Your task to perform on an android device: Empty the shopping cart on target. Search for "asus zenbook" on target, select the first entry, add it to the cart, then select checkout. Image 0: 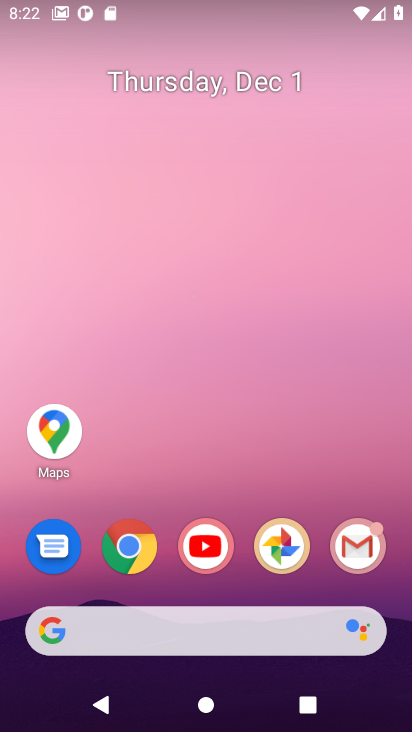
Step 0: click (125, 552)
Your task to perform on an android device: Empty the shopping cart on target. Search for "asus zenbook" on target, select the first entry, add it to the cart, then select checkout. Image 1: 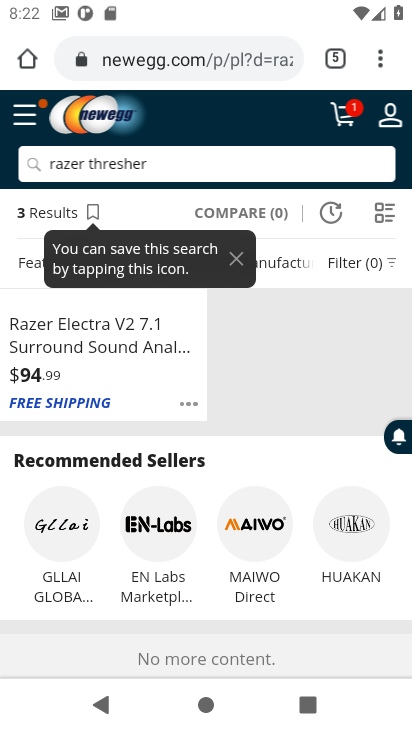
Step 1: click (167, 64)
Your task to perform on an android device: Empty the shopping cart on target. Search for "asus zenbook" on target, select the first entry, add it to the cart, then select checkout. Image 2: 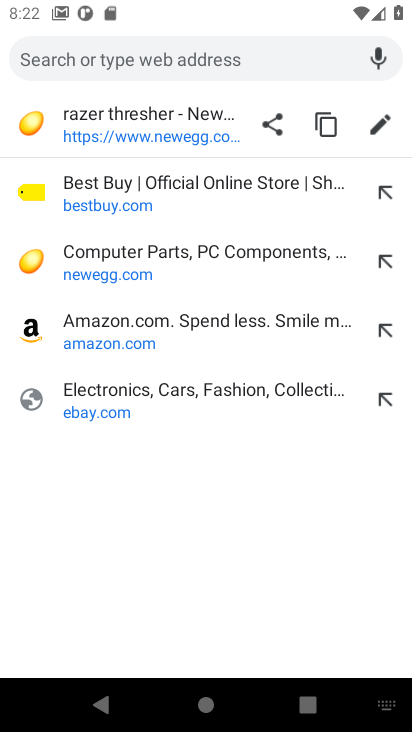
Step 2: type "target.com"
Your task to perform on an android device: Empty the shopping cart on target. Search for "asus zenbook" on target, select the first entry, add it to the cart, then select checkout. Image 3: 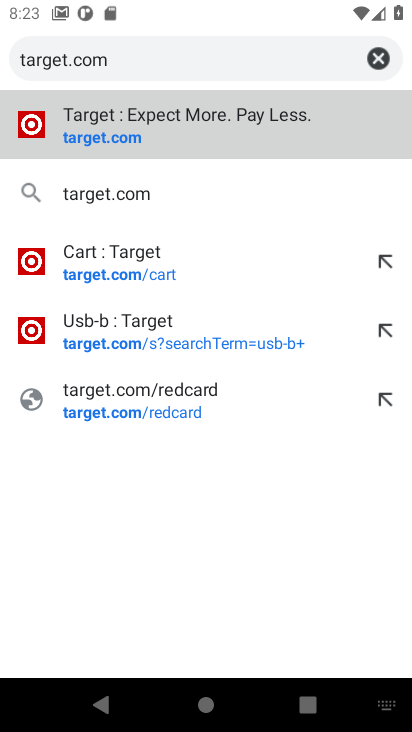
Step 3: click (97, 145)
Your task to perform on an android device: Empty the shopping cart on target. Search for "asus zenbook" on target, select the first entry, add it to the cart, then select checkout. Image 4: 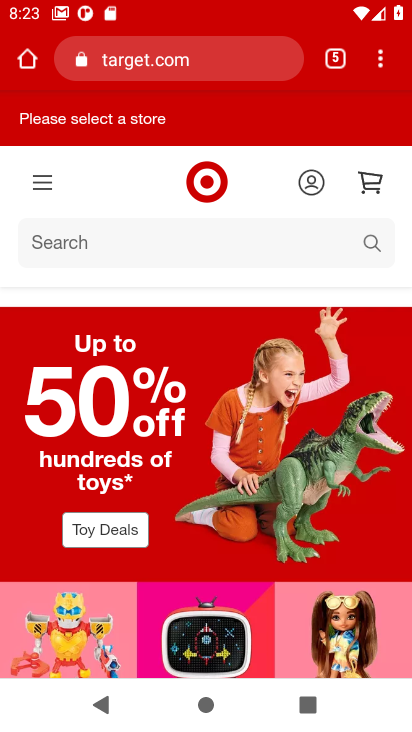
Step 4: click (371, 187)
Your task to perform on an android device: Empty the shopping cart on target. Search for "asus zenbook" on target, select the first entry, add it to the cart, then select checkout. Image 5: 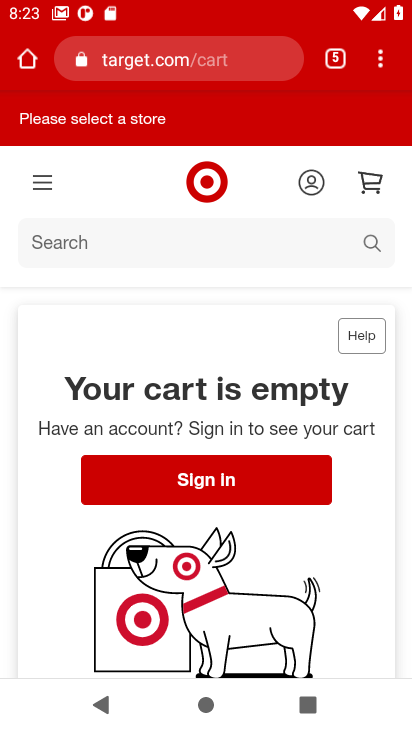
Step 5: click (73, 245)
Your task to perform on an android device: Empty the shopping cart on target. Search for "asus zenbook" on target, select the first entry, add it to the cart, then select checkout. Image 6: 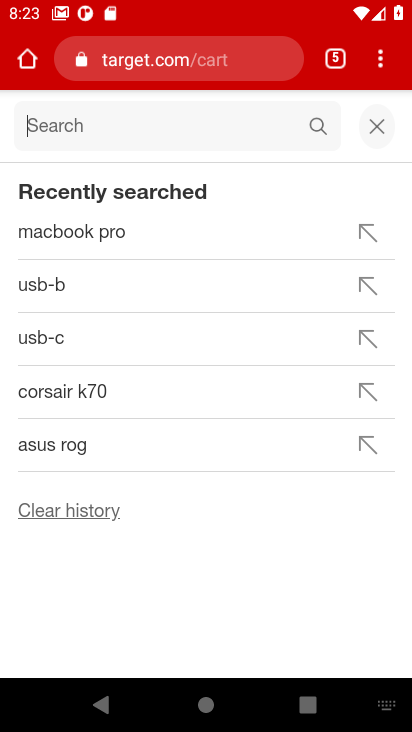
Step 6: type "asus zenbook"
Your task to perform on an android device: Empty the shopping cart on target. Search for "asus zenbook" on target, select the first entry, add it to the cart, then select checkout. Image 7: 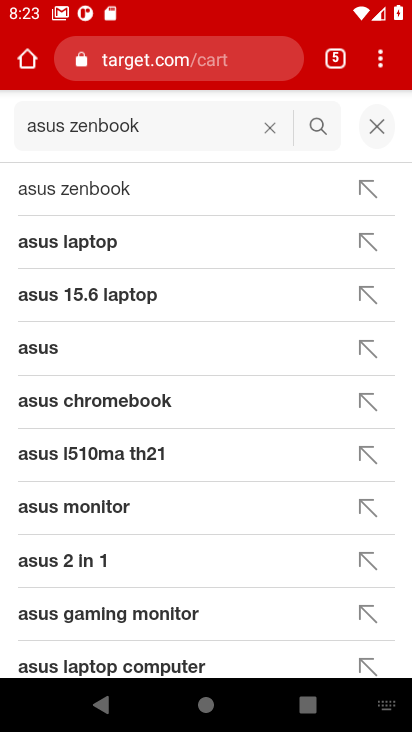
Step 7: click (78, 195)
Your task to perform on an android device: Empty the shopping cart on target. Search for "asus zenbook" on target, select the first entry, add it to the cart, then select checkout. Image 8: 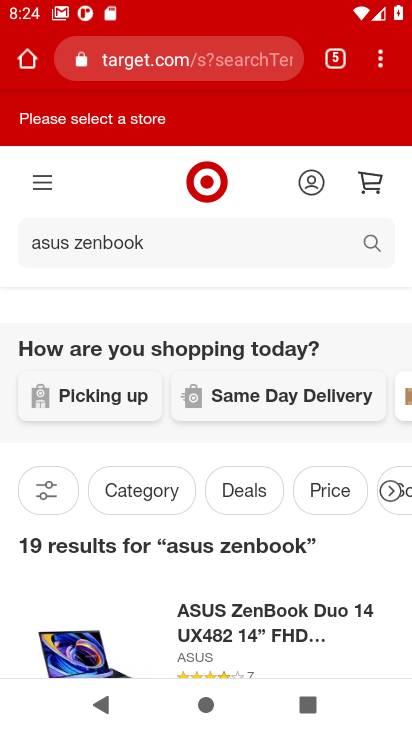
Step 8: drag from (184, 510) to (175, 258)
Your task to perform on an android device: Empty the shopping cart on target. Search for "asus zenbook" on target, select the first entry, add it to the cart, then select checkout. Image 9: 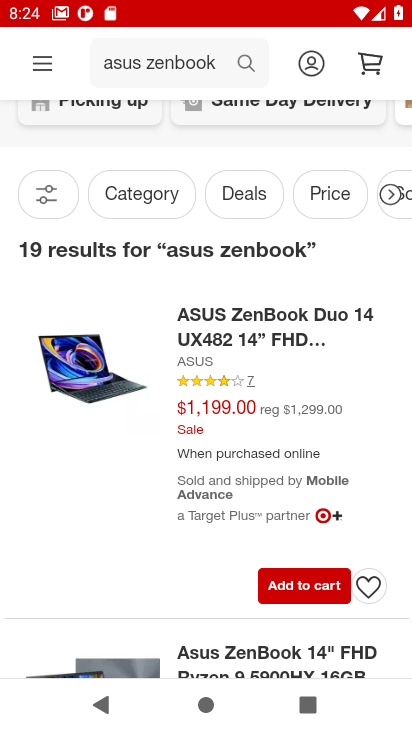
Step 9: click (210, 337)
Your task to perform on an android device: Empty the shopping cart on target. Search for "asus zenbook" on target, select the first entry, add it to the cart, then select checkout. Image 10: 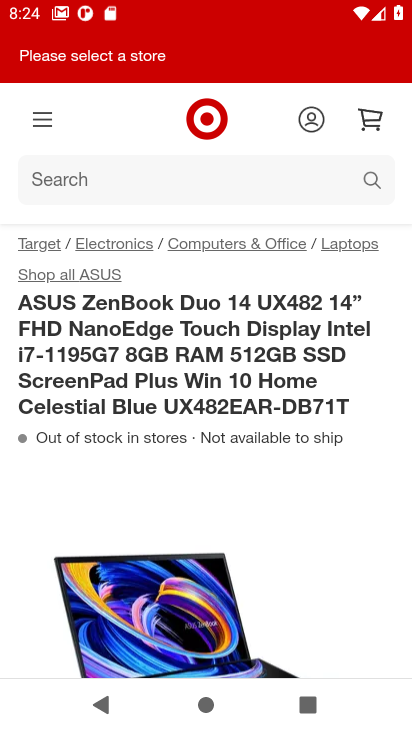
Step 10: drag from (201, 501) to (191, 190)
Your task to perform on an android device: Empty the shopping cart on target. Search for "asus zenbook" on target, select the first entry, add it to the cart, then select checkout. Image 11: 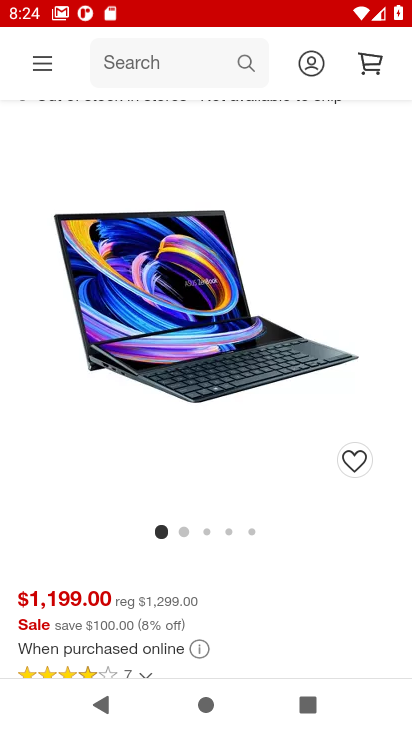
Step 11: drag from (188, 402) to (172, 138)
Your task to perform on an android device: Empty the shopping cart on target. Search for "asus zenbook" on target, select the first entry, add it to the cart, then select checkout. Image 12: 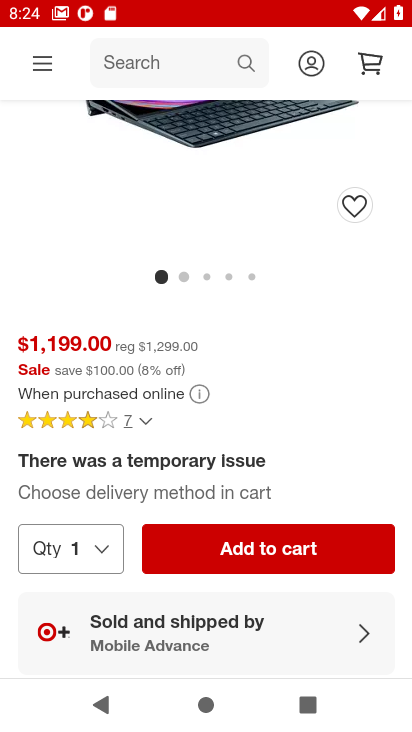
Step 12: click (246, 548)
Your task to perform on an android device: Empty the shopping cart on target. Search for "asus zenbook" on target, select the first entry, add it to the cart, then select checkout. Image 13: 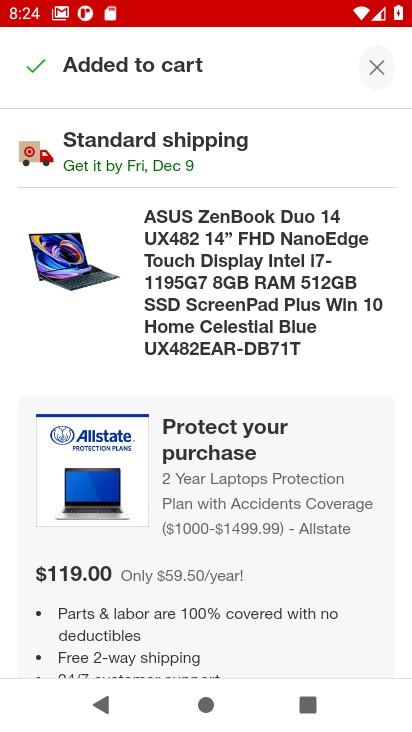
Step 13: click (376, 69)
Your task to perform on an android device: Empty the shopping cart on target. Search for "asus zenbook" on target, select the first entry, add it to the cart, then select checkout. Image 14: 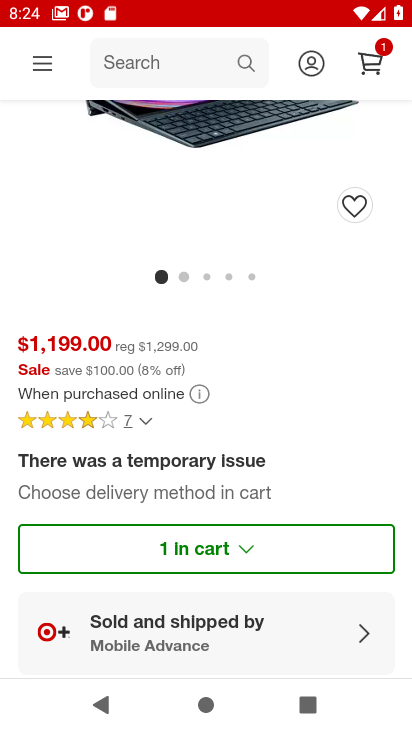
Step 14: click (370, 70)
Your task to perform on an android device: Empty the shopping cart on target. Search for "asus zenbook" on target, select the first entry, add it to the cart, then select checkout. Image 15: 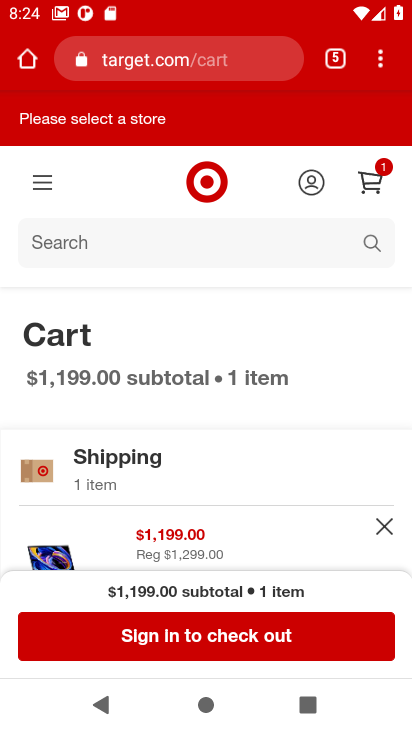
Step 15: click (217, 644)
Your task to perform on an android device: Empty the shopping cart on target. Search for "asus zenbook" on target, select the first entry, add it to the cart, then select checkout. Image 16: 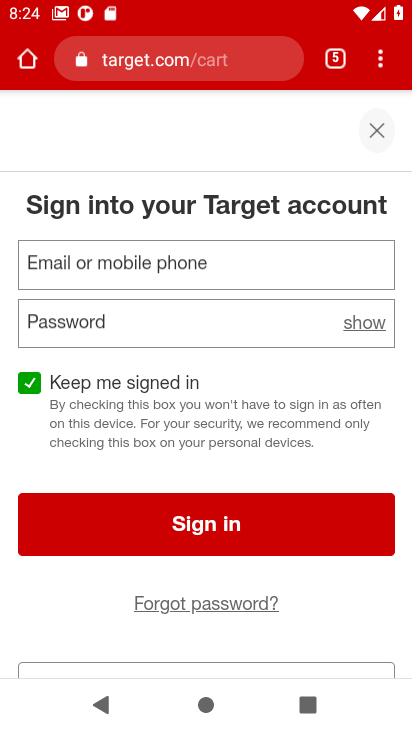
Step 16: task complete